Your task to perform on an android device: turn on bluetooth scan Image 0: 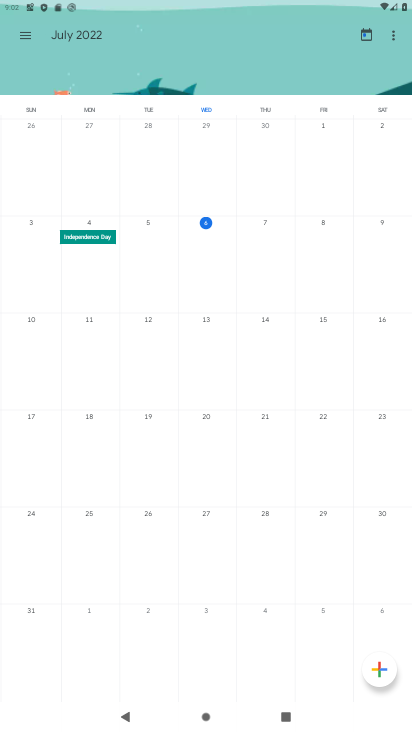
Step 0: press home button
Your task to perform on an android device: turn on bluetooth scan Image 1: 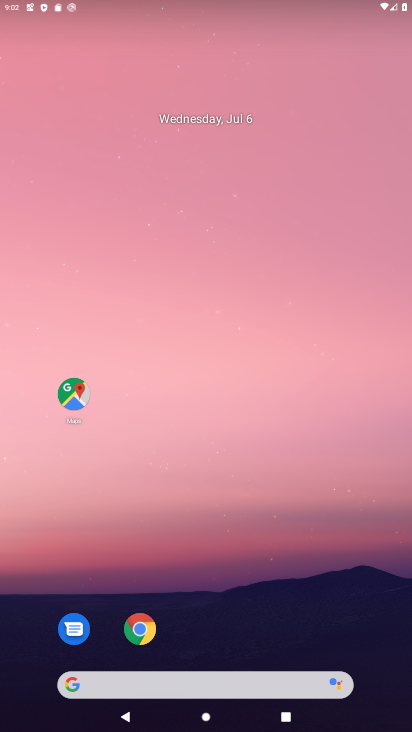
Step 1: drag from (270, 673) to (217, 100)
Your task to perform on an android device: turn on bluetooth scan Image 2: 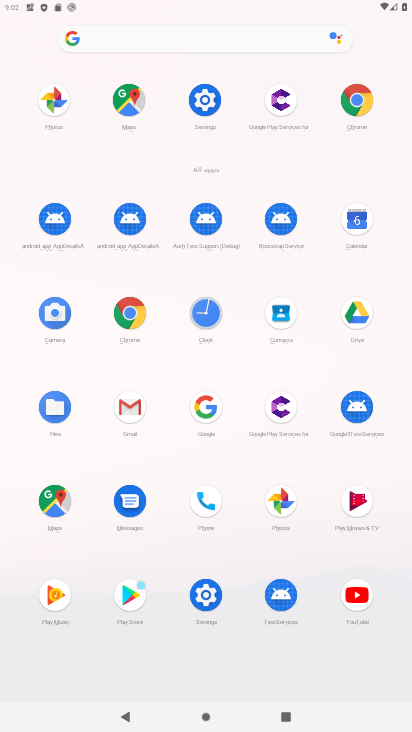
Step 2: click (199, 98)
Your task to perform on an android device: turn on bluetooth scan Image 3: 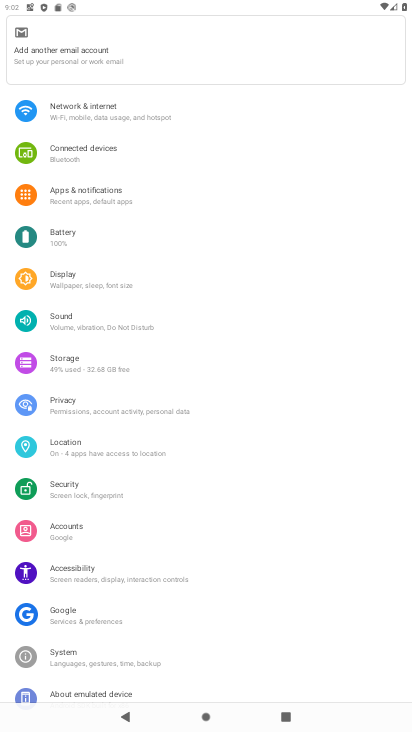
Step 3: click (94, 446)
Your task to perform on an android device: turn on bluetooth scan Image 4: 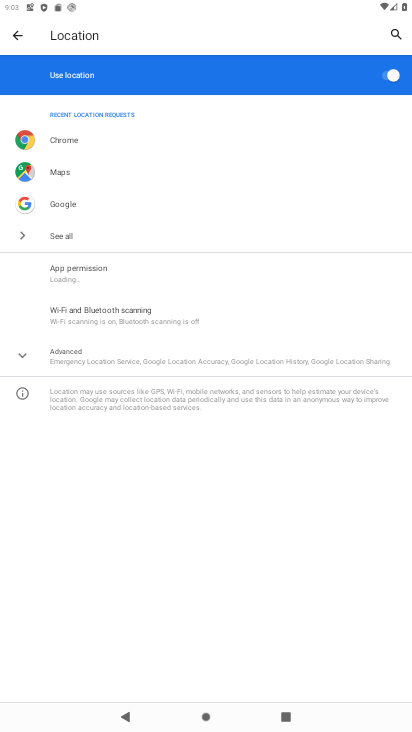
Step 4: click (93, 309)
Your task to perform on an android device: turn on bluetooth scan Image 5: 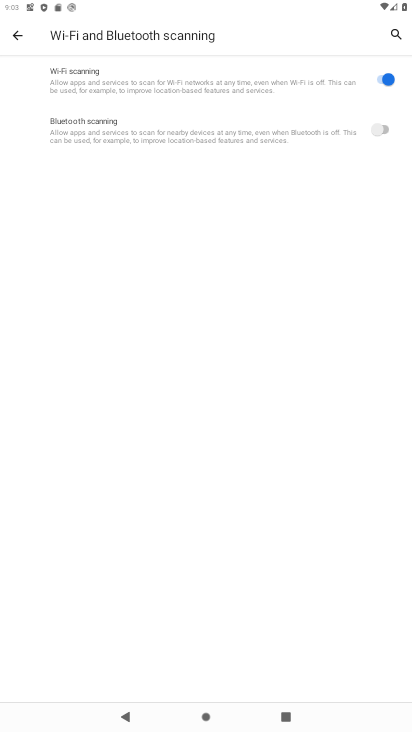
Step 5: task complete